Your task to perform on an android device: Open Yahoo.com Image 0: 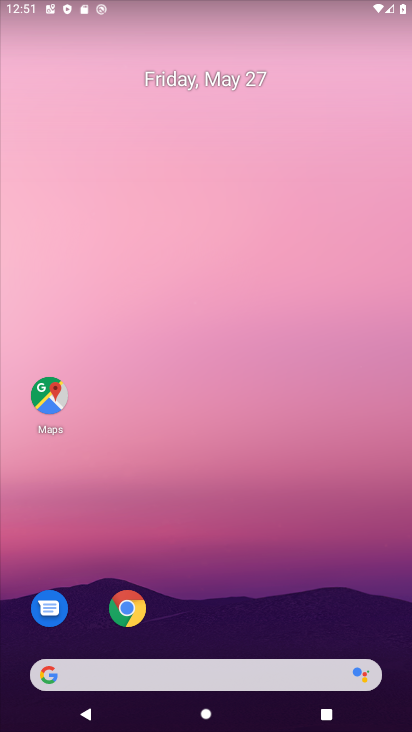
Step 0: click (122, 598)
Your task to perform on an android device: Open Yahoo.com Image 1: 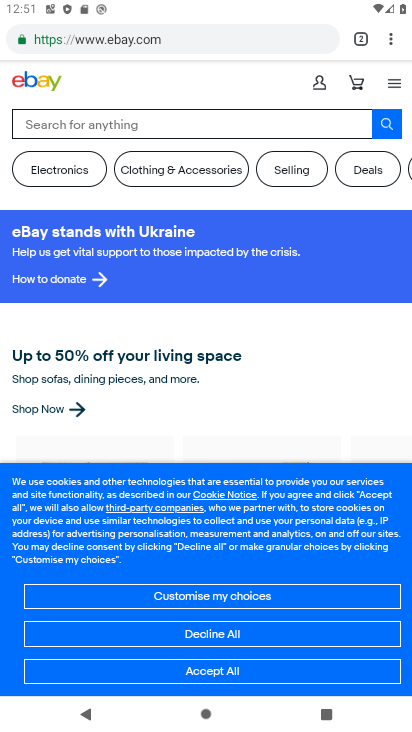
Step 1: click (364, 39)
Your task to perform on an android device: Open Yahoo.com Image 2: 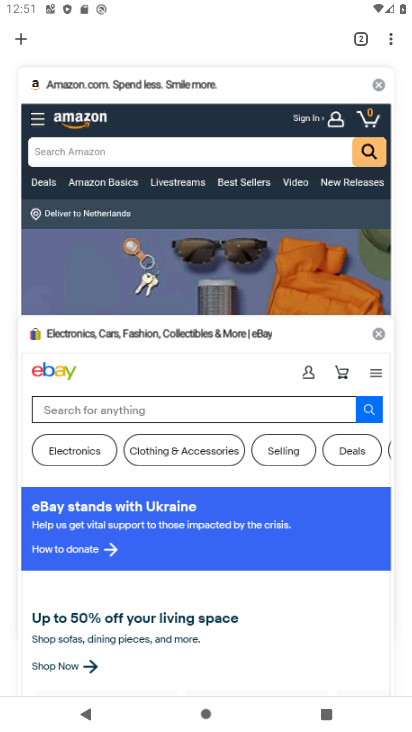
Step 2: click (19, 35)
Your task to perform on an android device: Open Yahoo.com Image 3: 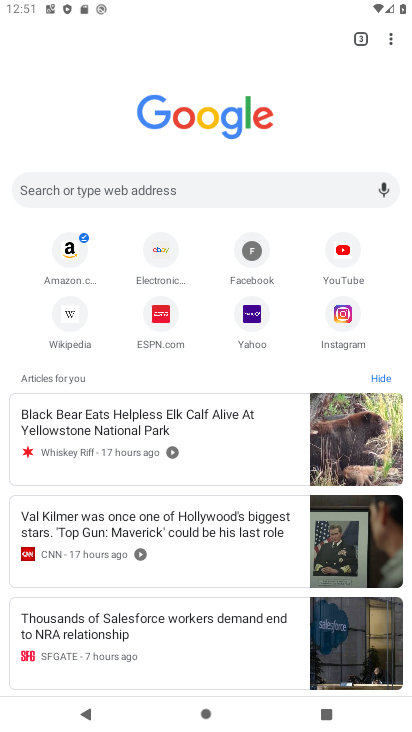
Step 3: click (256, 325)
Your task to perform on an android device: Open Yahoo.com Image 4: 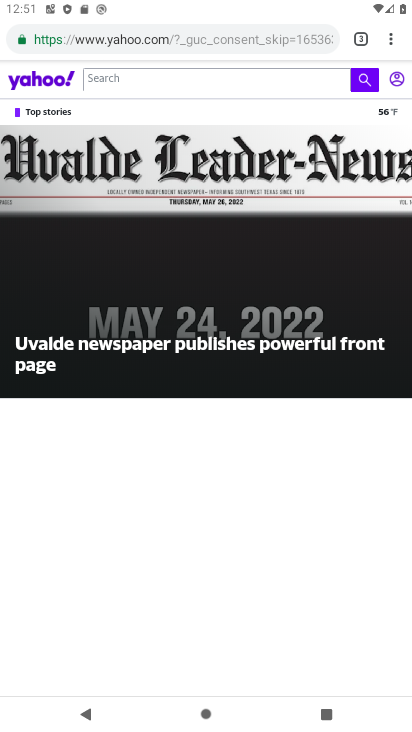
Step 4: task complete